Your task to perform on an android device: Go to sound settings Image 0: 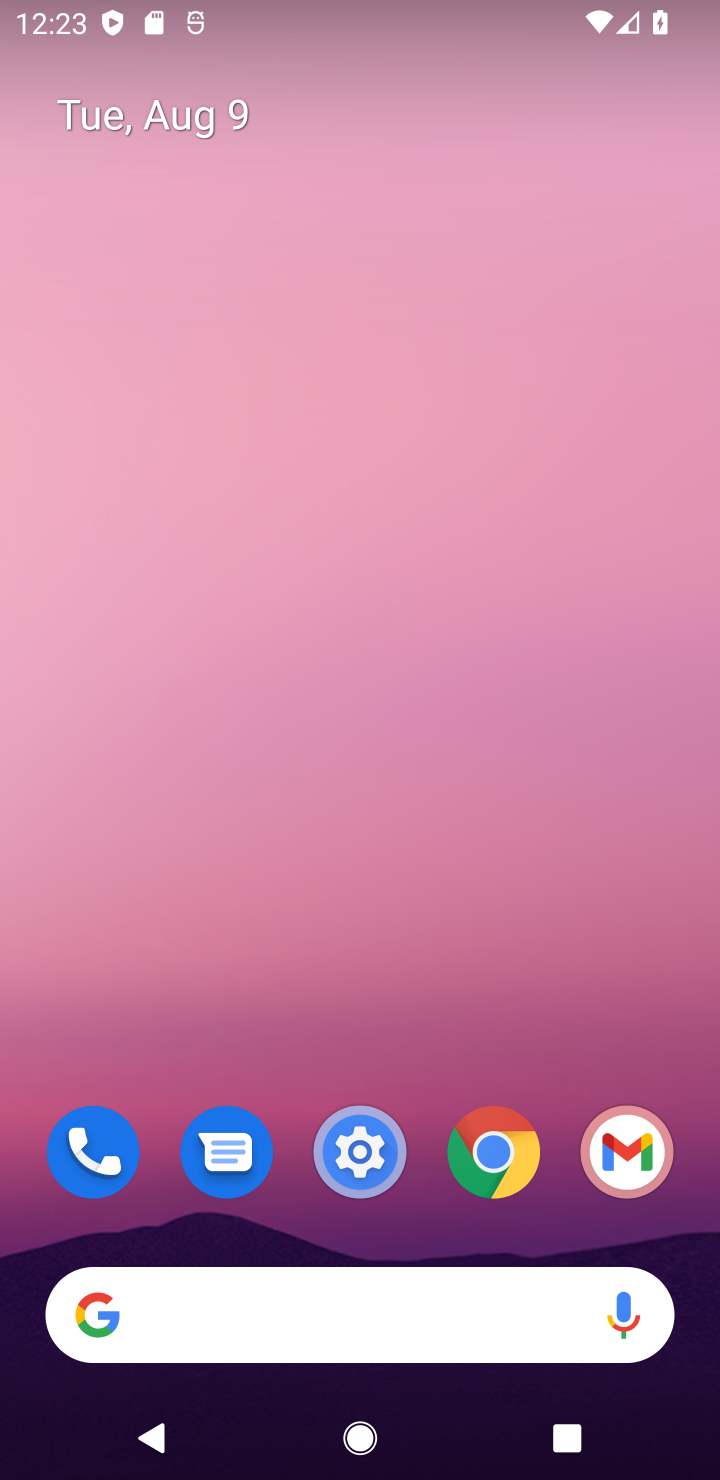
Step 0: drag from (444, 1093) to (398, 126)
Your task to perform on an android device: Go to sound settings Image 1: 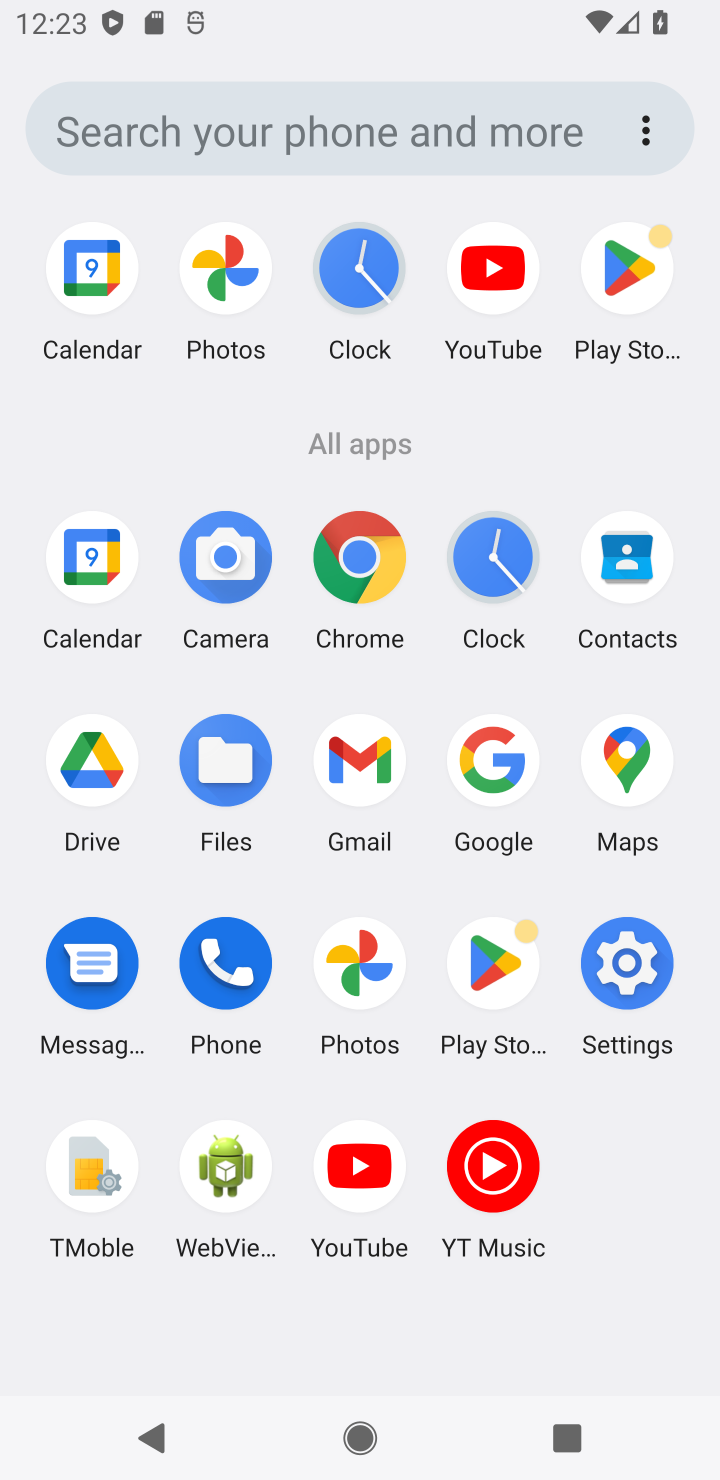
Step 1: click (636, 972)
Your task to perform on an android device: Go to sound settings Image 2: 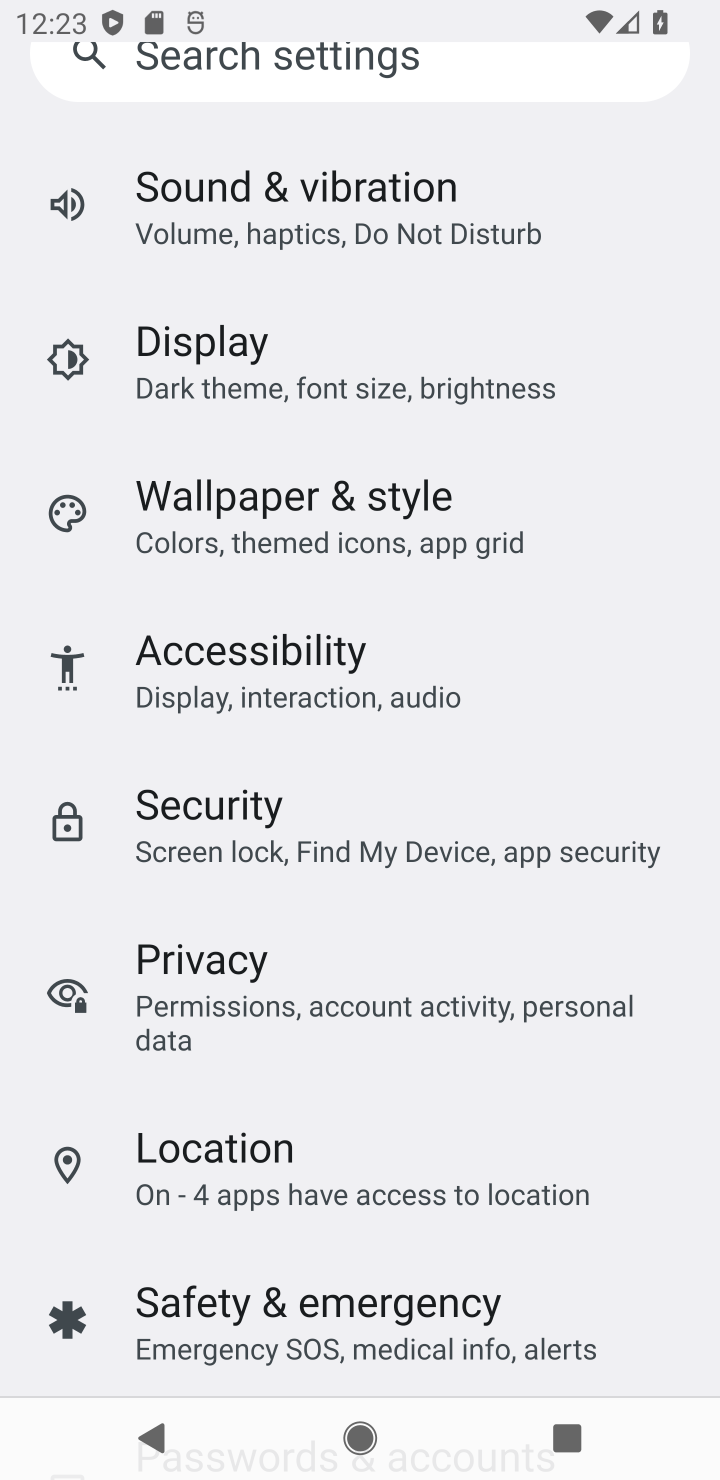
Step 2: click (173, 231)
Your task to perform on an android device: Go to sound settings Image 3: 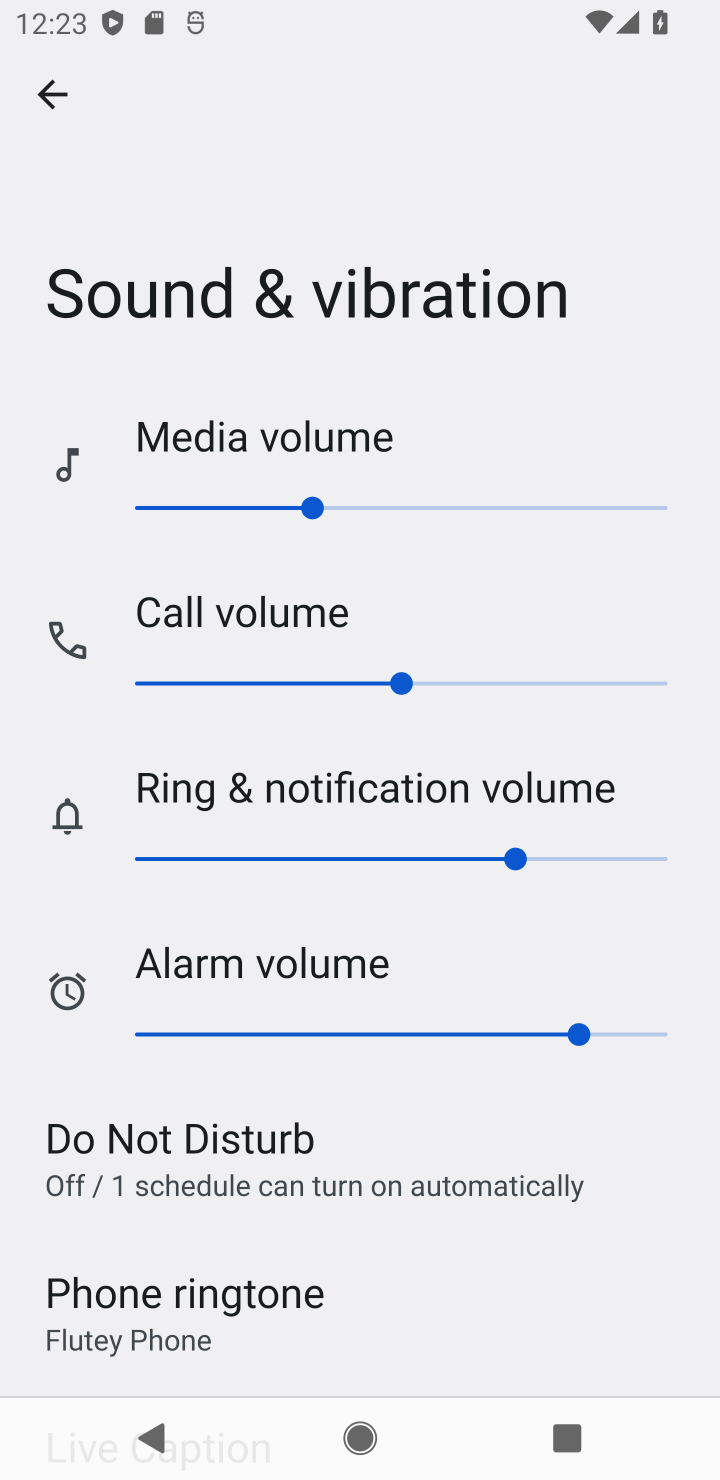
Step 3: task complete